Your task to perform on an android device: uninstall "Etsy: Buy & Sell Unique Items" Image 0: 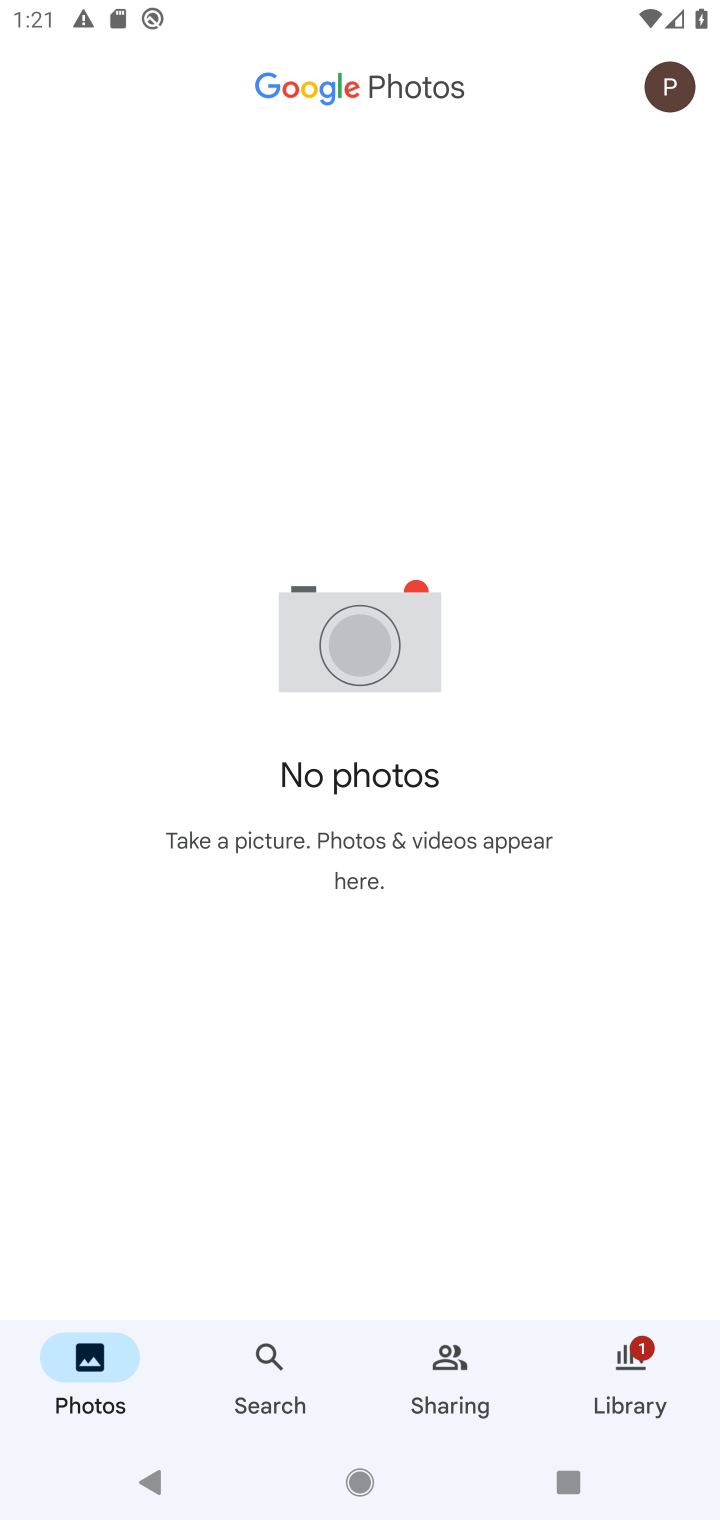
Step 0: press home button
Your task to perform on an android device: uninstall "Etsy: Buy & Sell Unique Items" Image 1: 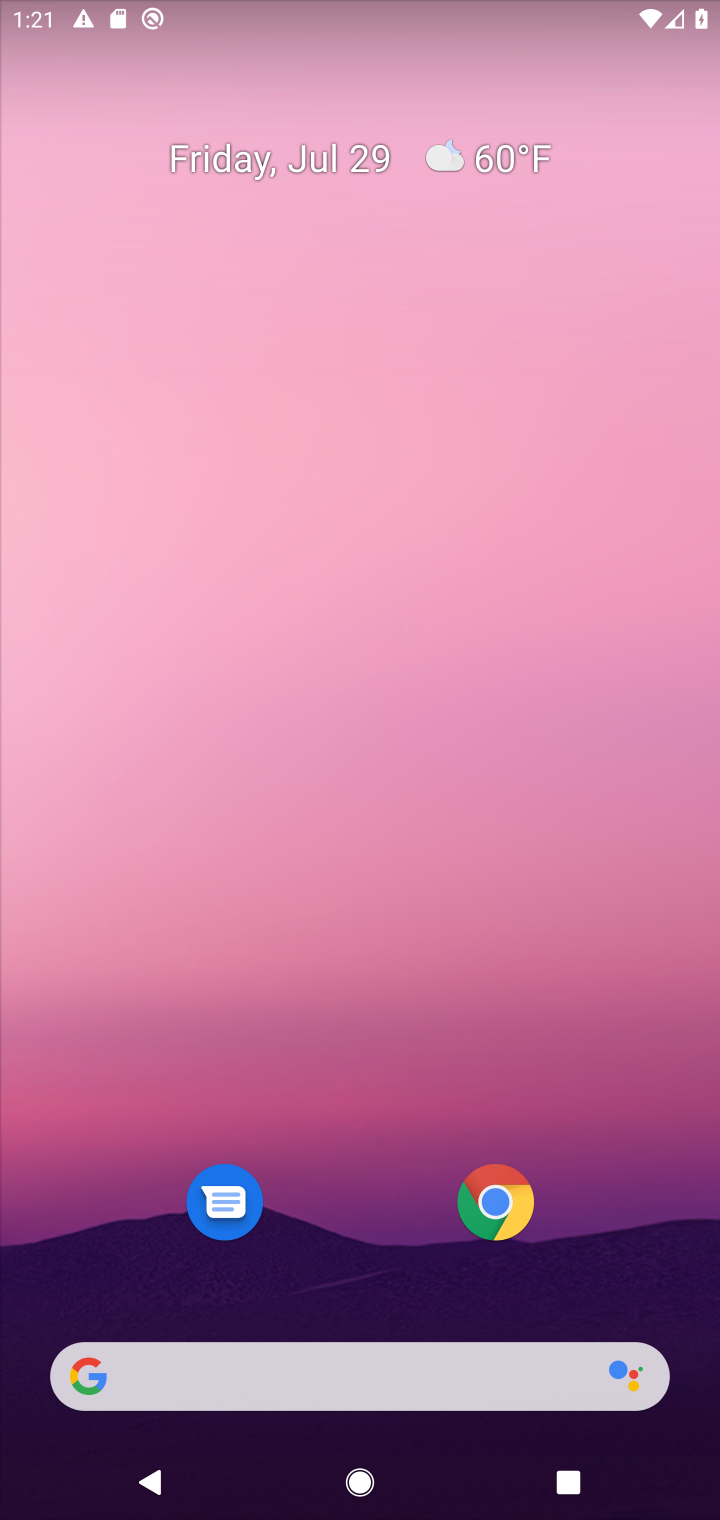
Step 1: drag from (326, 1330) to (327, 0)
Your task to perform on an android device: uninstall "Etsy: Buy & Sell Unique Items" Image 2: 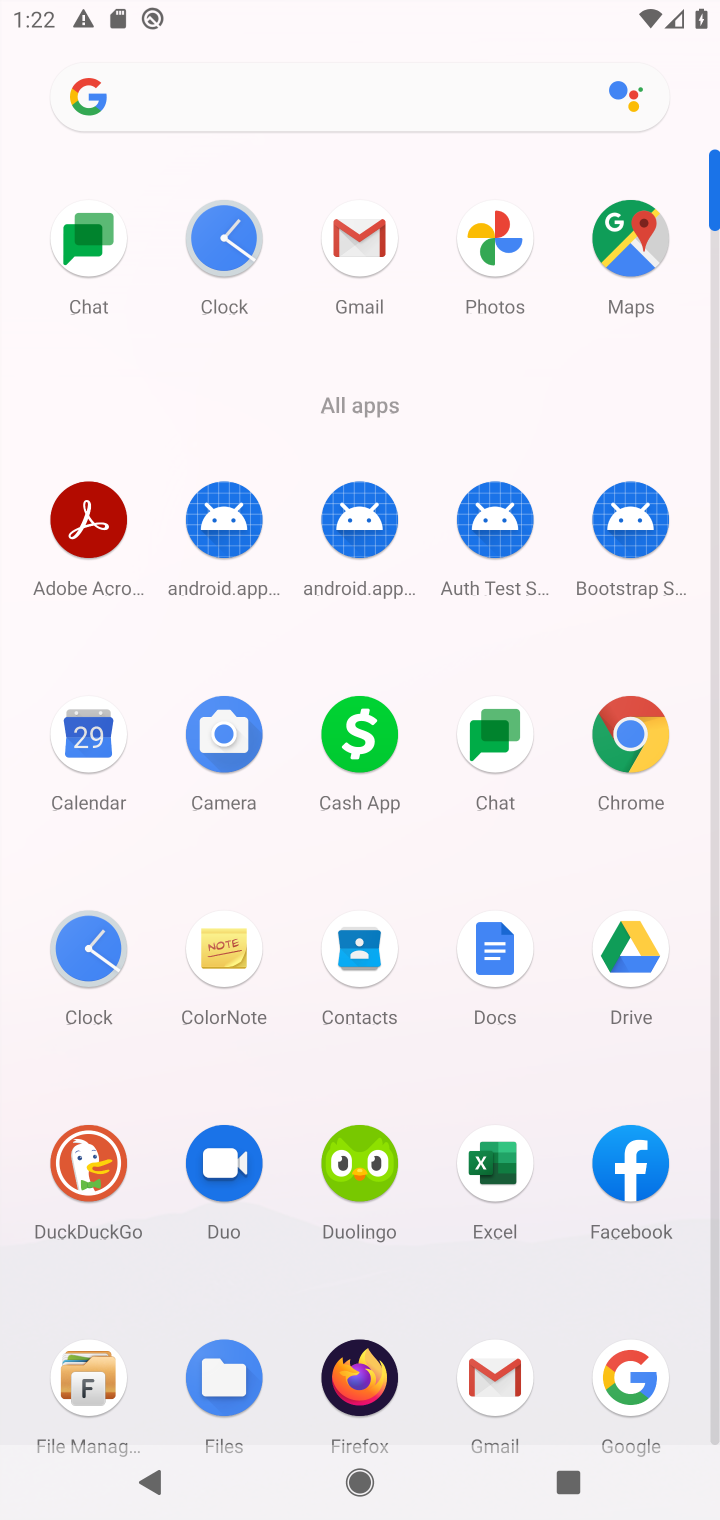
Step 2: click (243, 100)
Your task to perform on an android device: uninstall "Etsy: Buy & Sell Unique Items" Image 3: 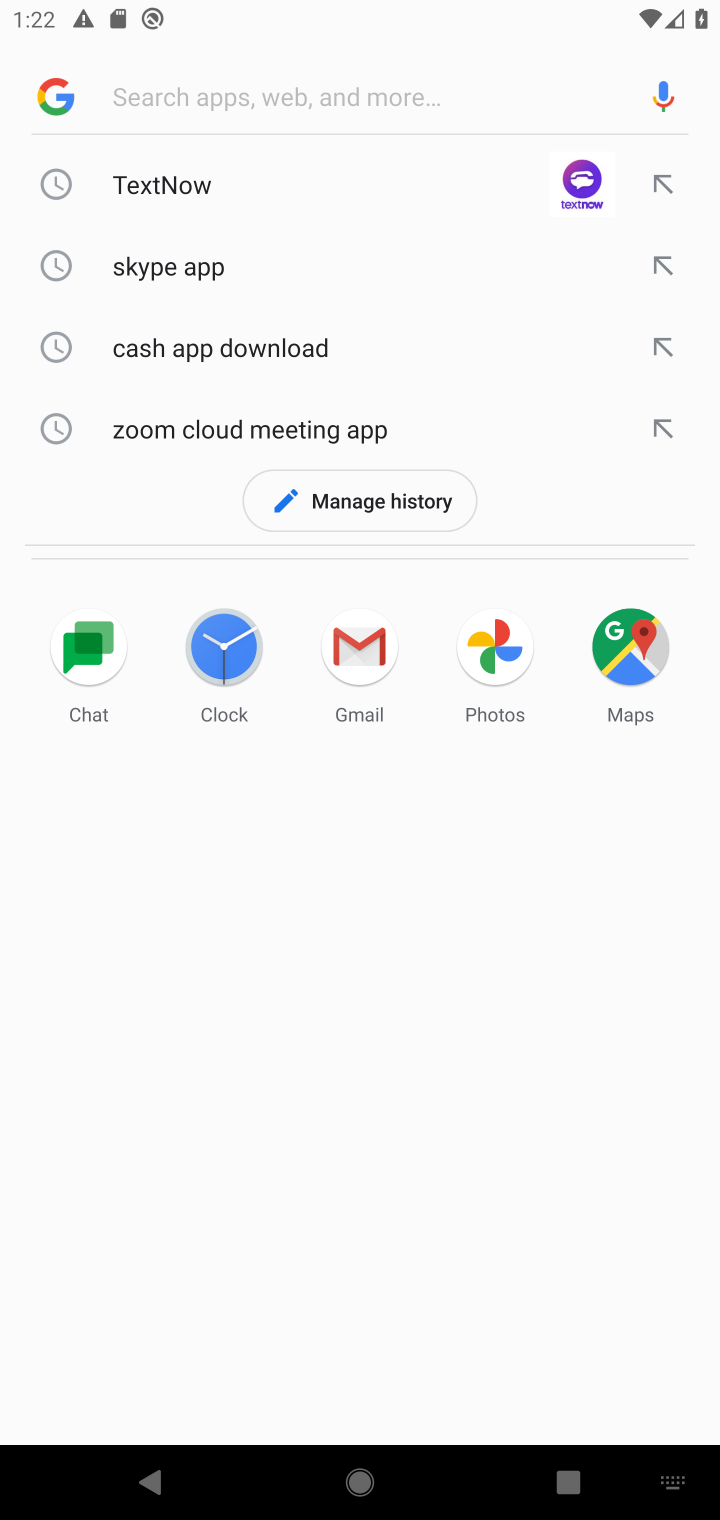
Step 3: type "etsy"
Your task to perform on an android device: uninstall "Etsy: Buy & Sell Unique Items" Image 4: 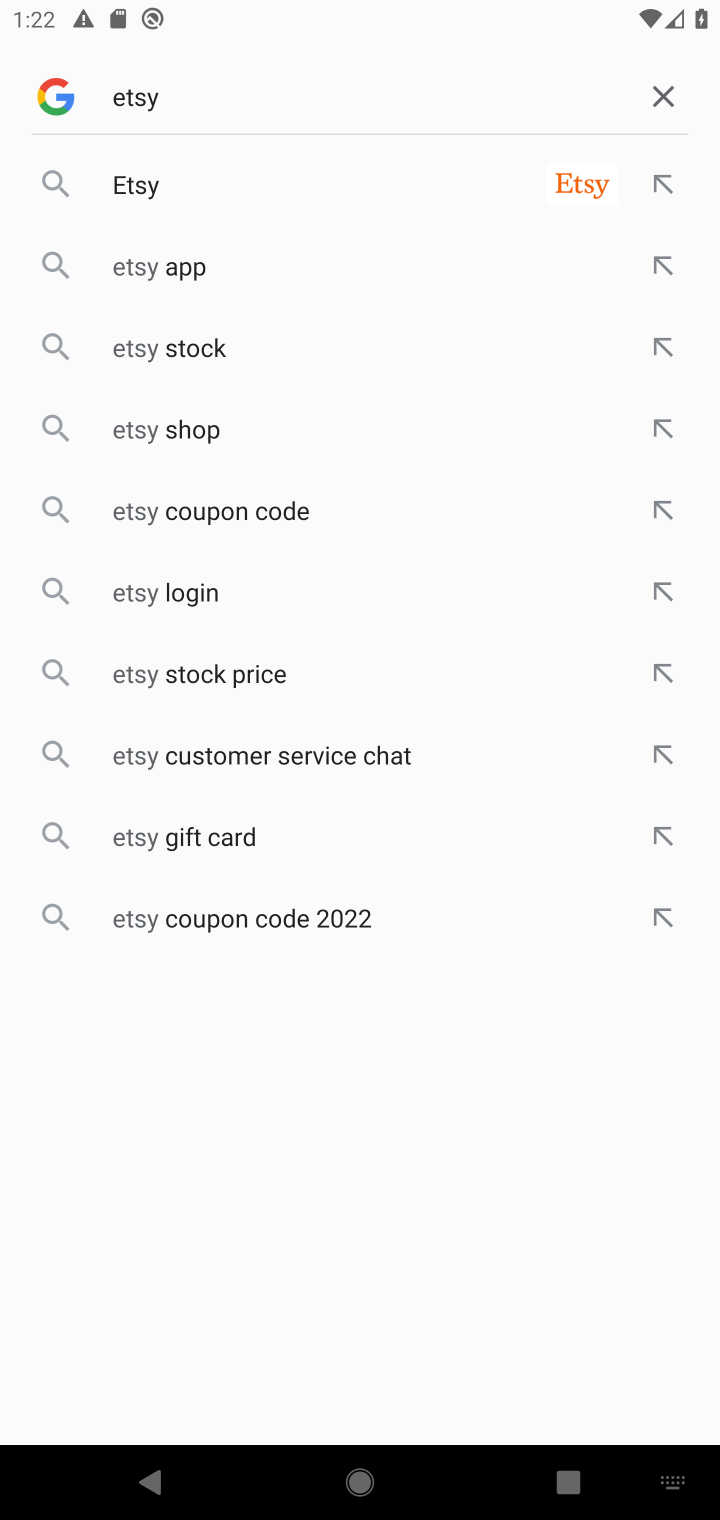
Step 4: click (173, 178)
Your task to perform on an android device: uninstall "Etsy: Buy & Sell Unique Items" Image 5: 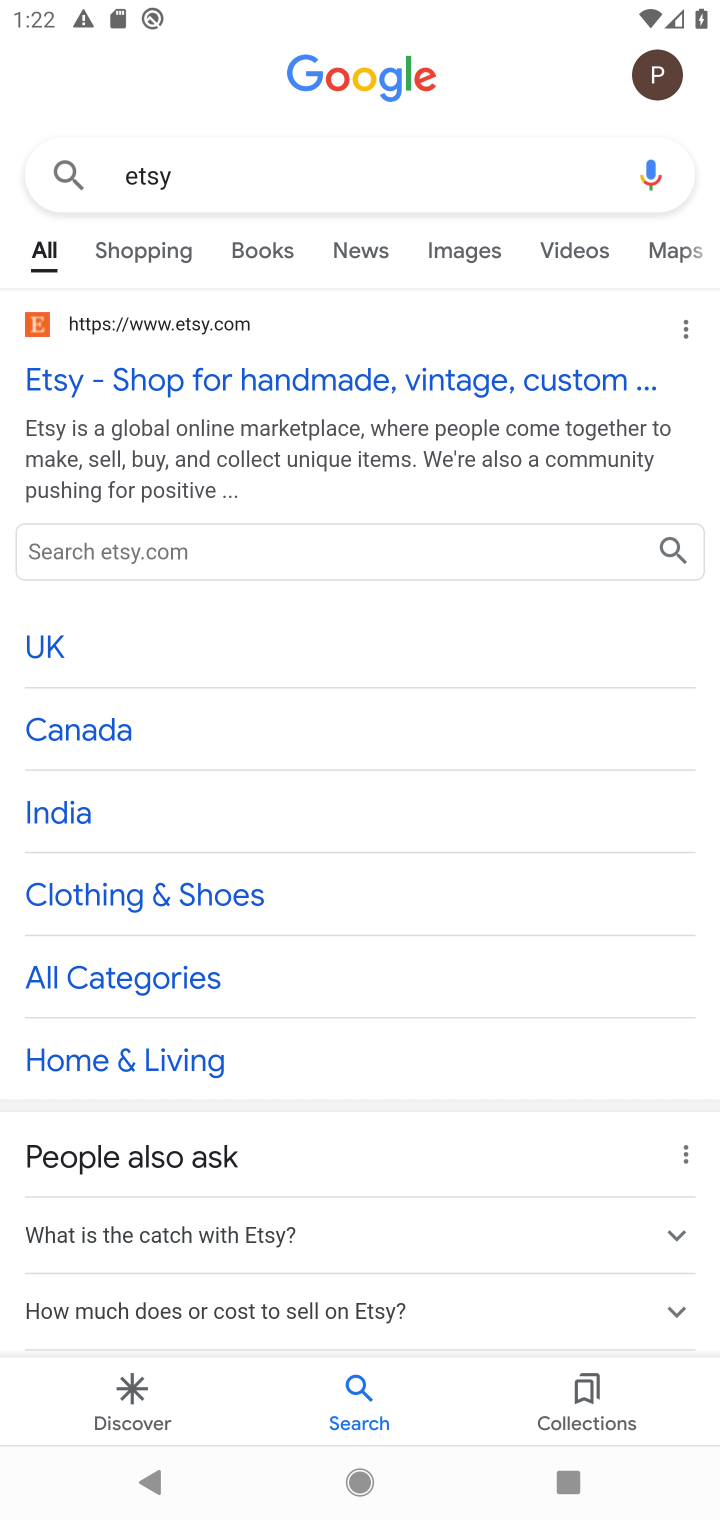
Step 5: task complete